Your task to perform on an android device: Go to privacy settings Image 0: 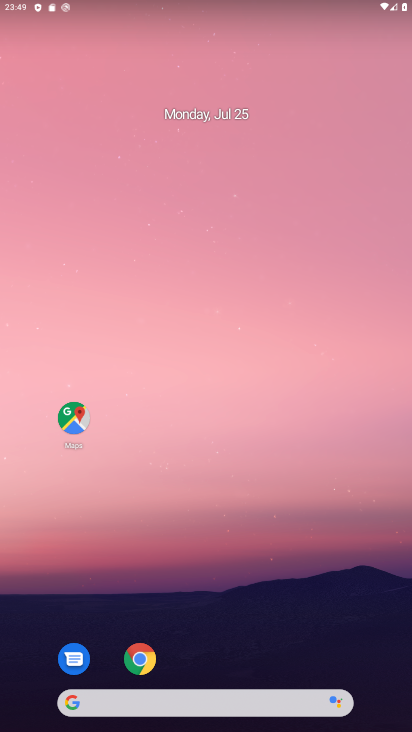
Step 0: drag from (258, 516) to (195, 9)
Your task to perform on an android device: Go to privacy settings Image 1: 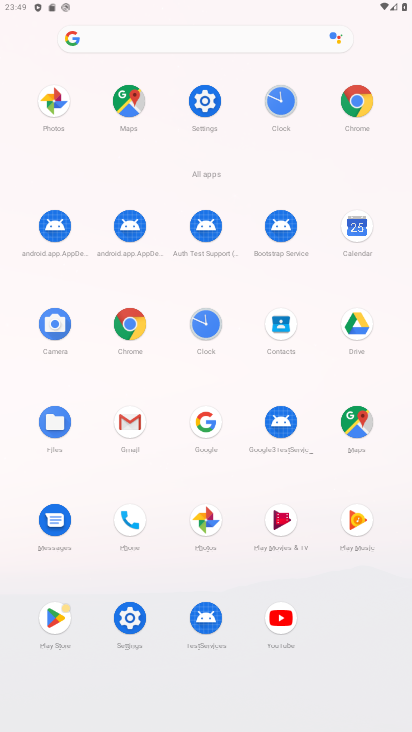
Step 1: click (198, 98)
Your task to perform on an android device: Go to privacy settings Image 2: 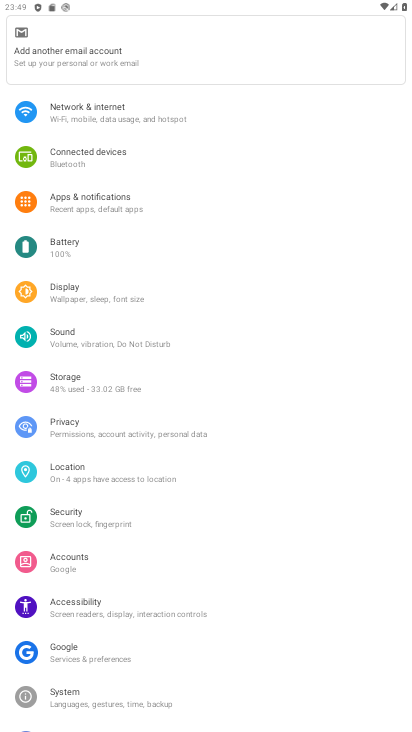
Step 2: click (115, 420)
Your task to perform on an android device: Go to privacy settings Image 3: 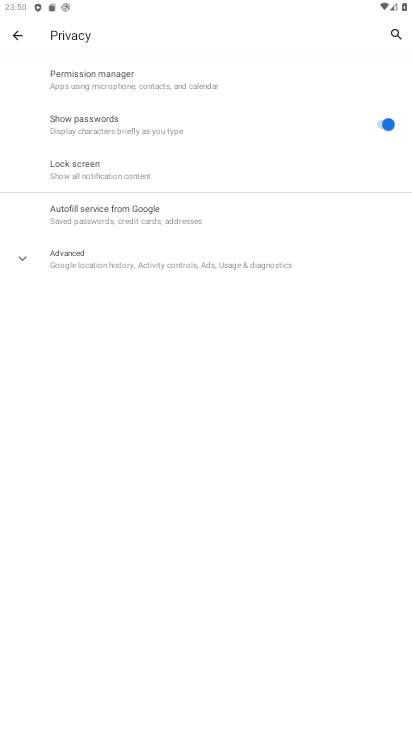
Step 3: task complete